Your task to perform on an android device: open device folders in google photos Image 0: 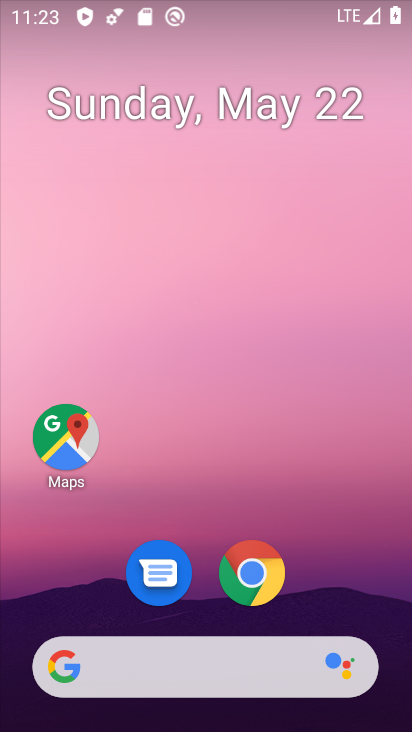
Step 0: drag from (201, 602) to (236, 241)
Your task to perform on an android device: open device folders in google photos Image 1: 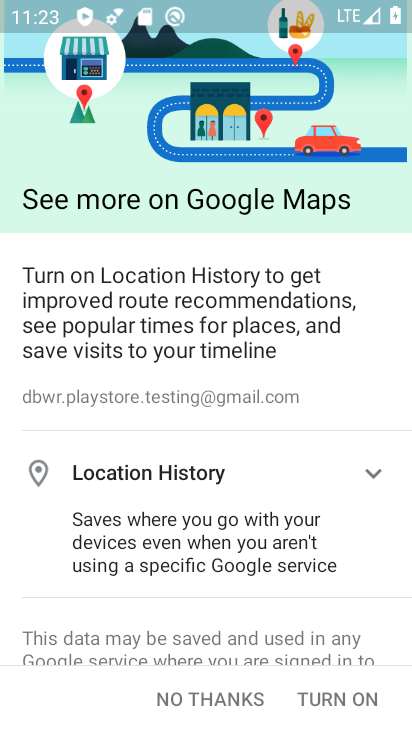
Step 1: press home button
Your task to perform on an android device: open device folders in google photos Image 2: 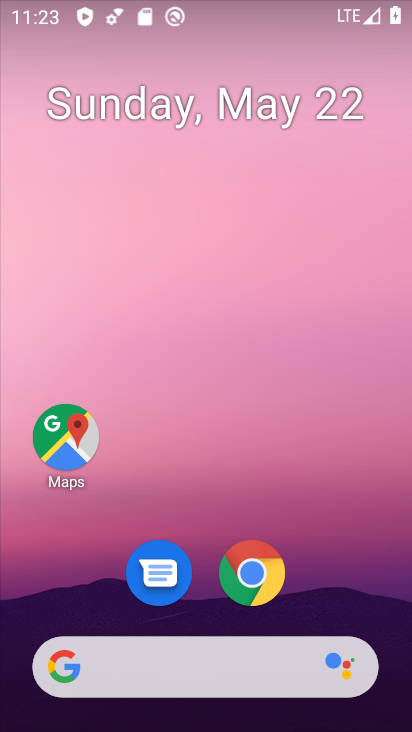
Step 2: drag from (212, 551) to (243, 241)
Your task to perform on an android device: open device folders in google photos Image 3: 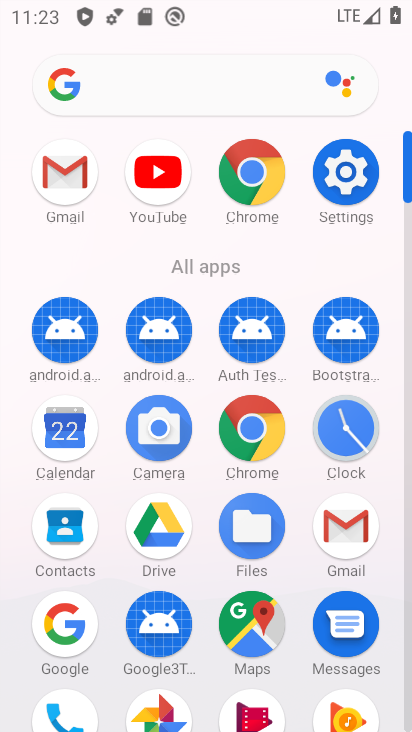
Step 3: drag from (225, 600) to (229, 316)
Your task to perform on an android device: open device folders in google photos Image 4: 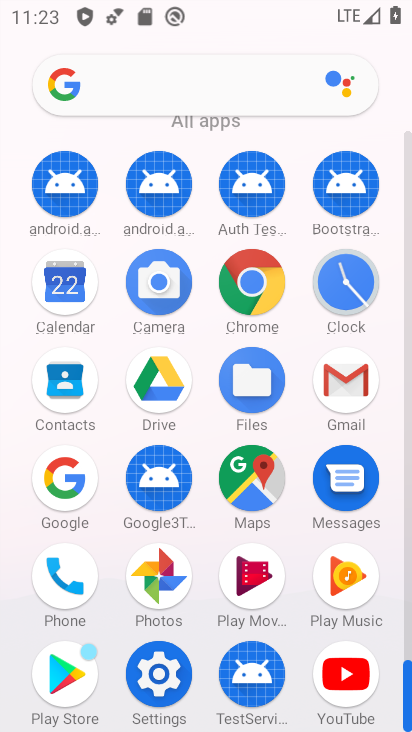
Step 4: click (160, 564)
Your task to perform on an android device: open device folders in google photos Image 5: 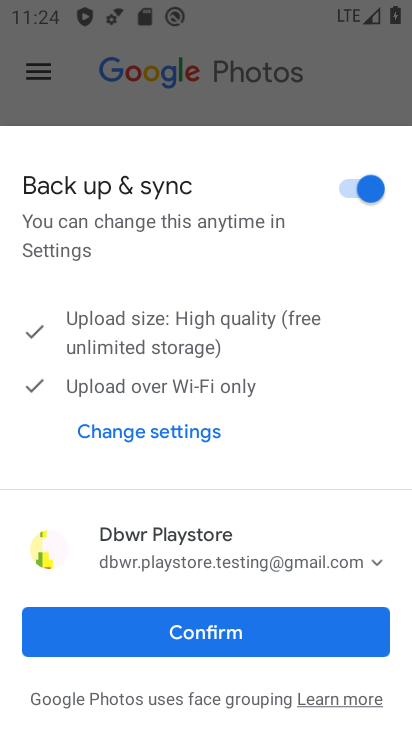
Step 5: click (202, 636)
Your task to perform on an android device: open device folders in google photos Image 6: 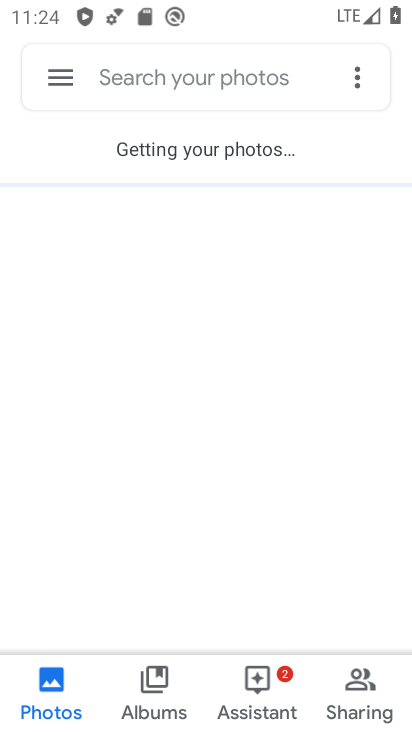
Step 6: click (65, 79)
Your task to perform on an android device: open device folders in google photos Image 7: 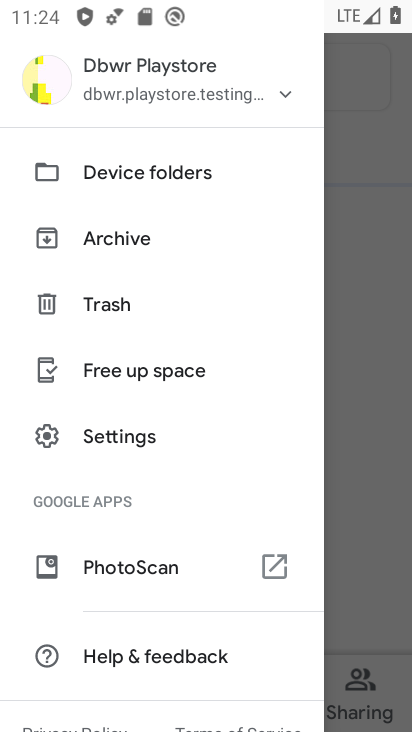
Step 7: click (114, 182)
Your task to perform on an android device: open device folders in google photos Image 8: 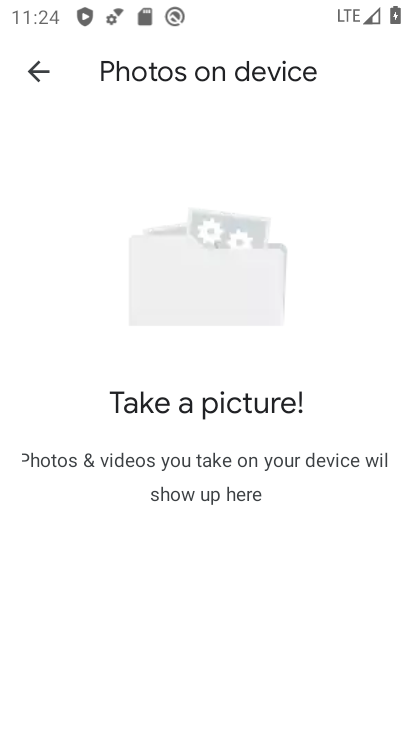
Step 8: task complete